Your task to perform on an android device: Open the web browser Image 0: 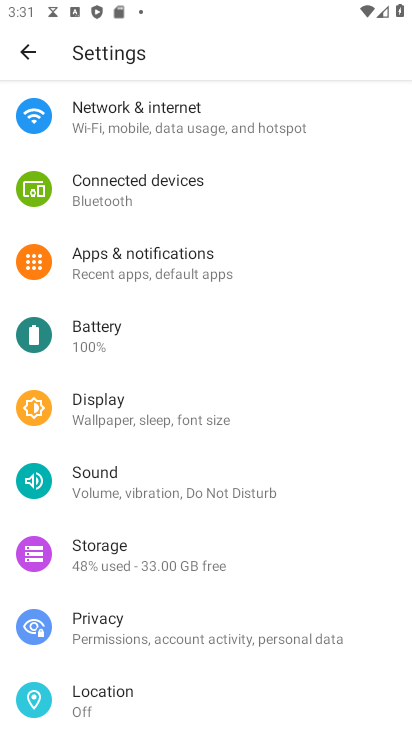
Step 0: press home button
Your task to perform on an android device: Open the web browser Image 1: 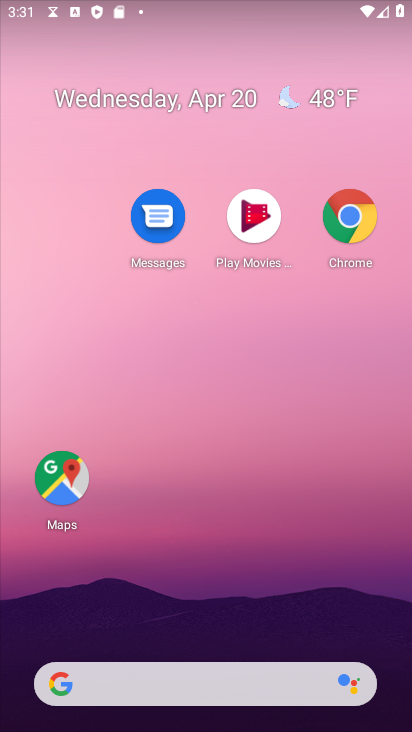
Step 1: drag from (239, 577) to (211, 103)
Your task to perform on an android device: Open the web browser Image 2: 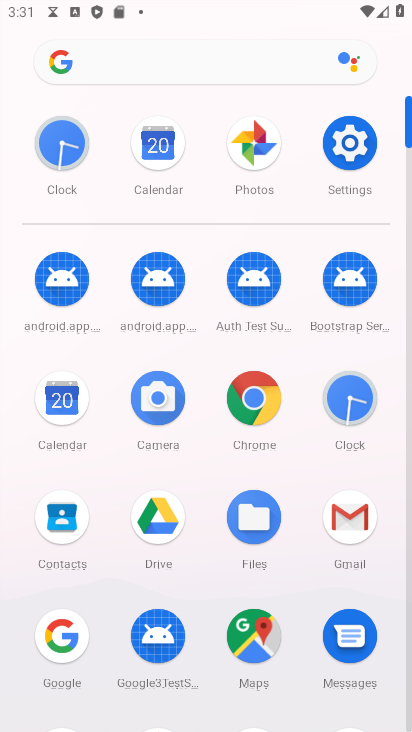
Step 2: drag from (202, 496) to (193, 311)
Your task to perform on an android device: Open the web browser Image 3: 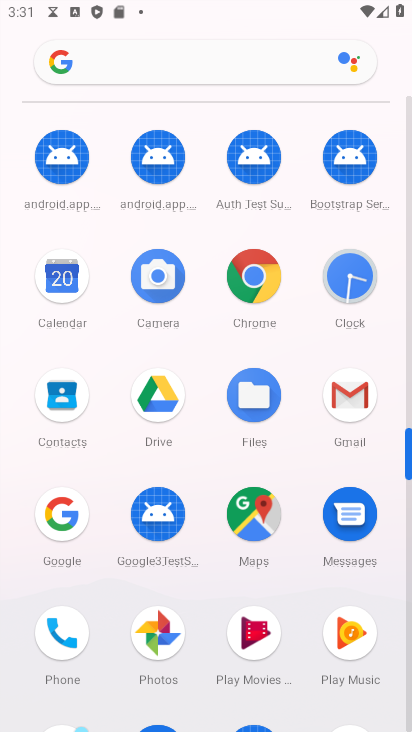
Step 3: click (247, 294)
Your task to perform on an android device: Open the web browser Image 4: 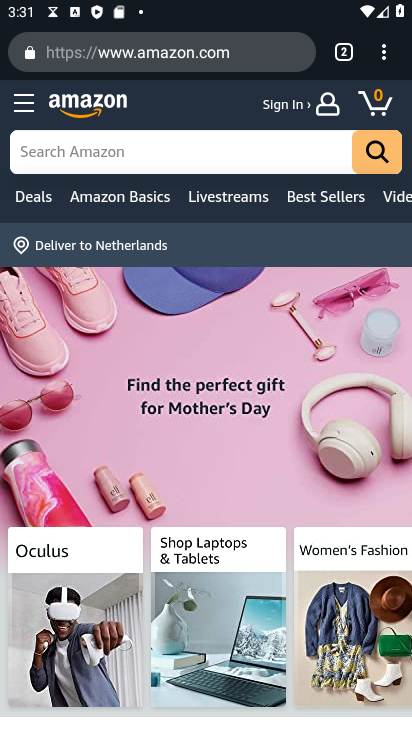
Step 4: task complete